Your task to perform on an android device: change your default location settings in chrome Image 0: 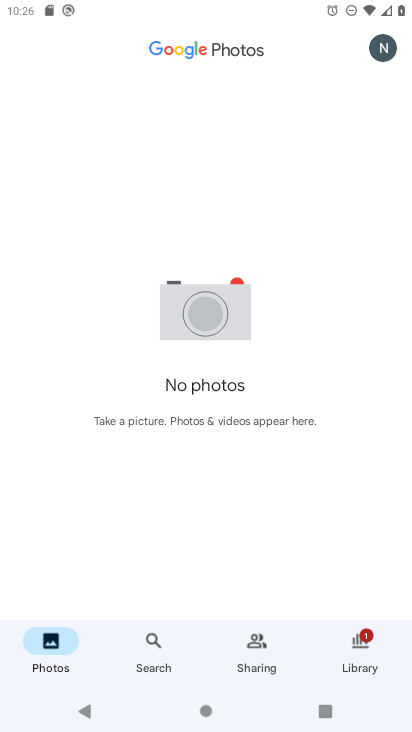
Step 0: press back button
Your task to perform on an android device: change your default location settings in chrome Image 1: 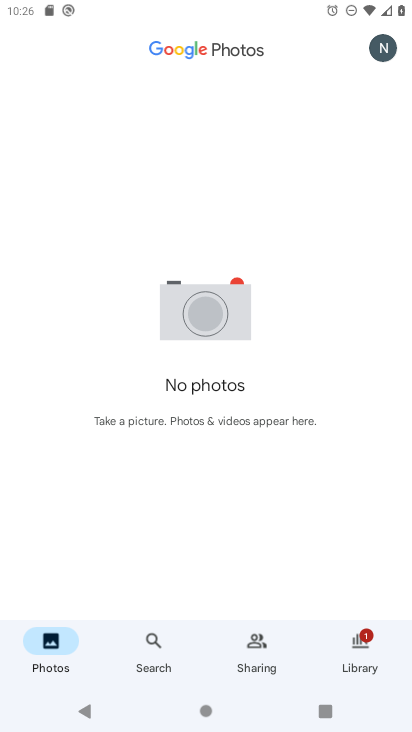
Step 1: press back button
Your task to perform on an android device: change your default location settings in chrome Image 2: 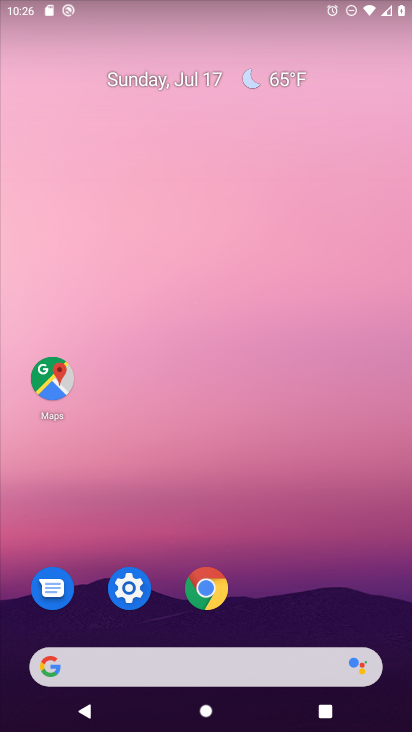
Step 2: drag from (237, 414) to (198, 153)
Your task to perform on an android device: change your default location settings in chrome Image 3: 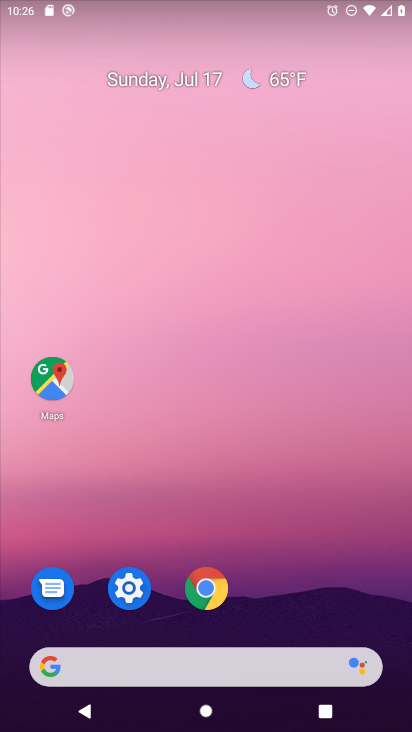
Step 3: drag from (266, 596) to (202, 213)
Your task to perform on an android device: change your default location settings in chrome Image 4: 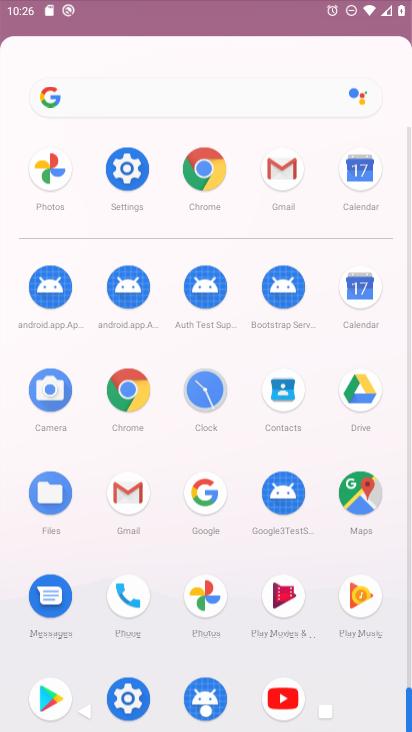
Step 4: drag from (266, 661) to (202, 147)
Your task to perform on an android device: change your default location settings in chrome Image 5: 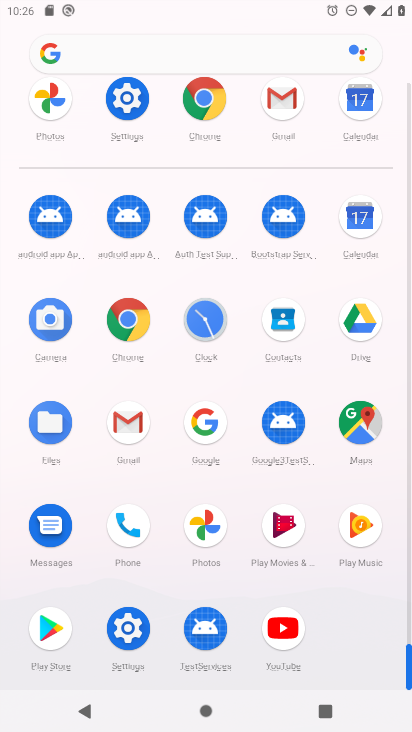
Step 5: click (121, 91)
Your task to perform on an android device: change your default location settings in chrome Image 6: 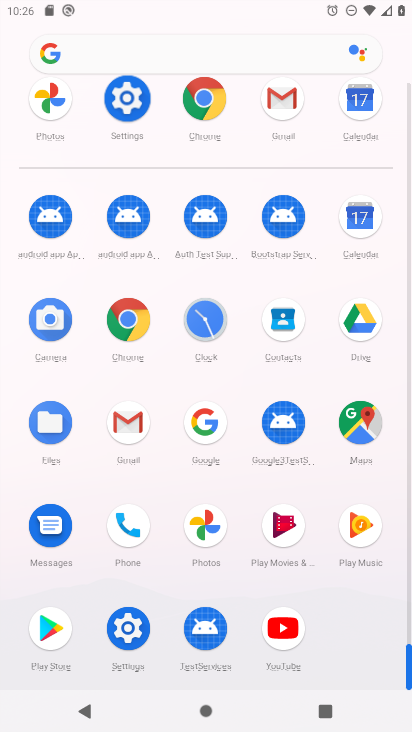
Step 6: click (123, 92)
Your task to perform on an android device: change your default location settings in chrome Image 7: 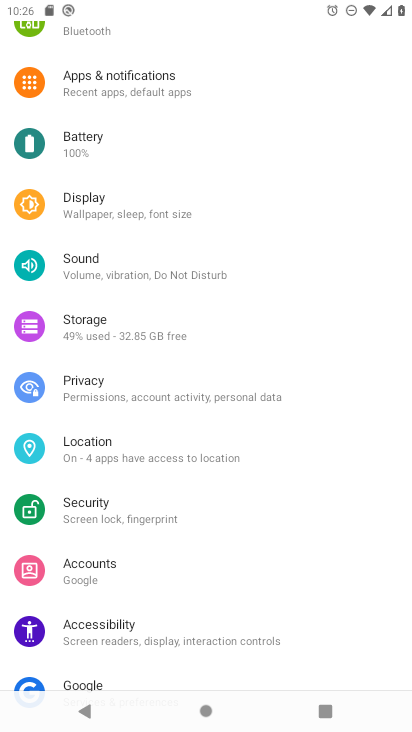
Step 7: press home button
Your task to perform on an android device: change your default location settings in chrome Image 8: 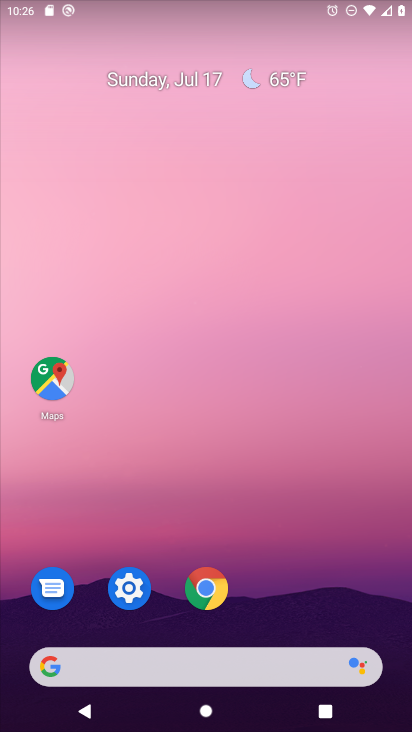
Step 8: drag from (276, 617) to (205, 118)
Your task to perform on an android device: change your default location settings in chrome Image 9: 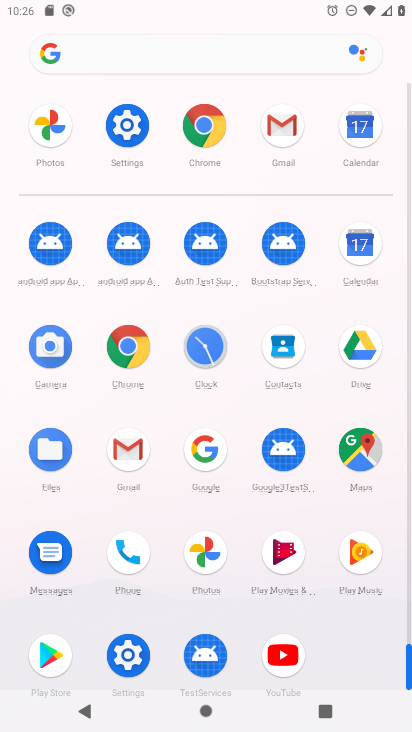
Step 9: click (201, 133)
Your task to perform on an android device: change your default location settings in chrome Image 10: 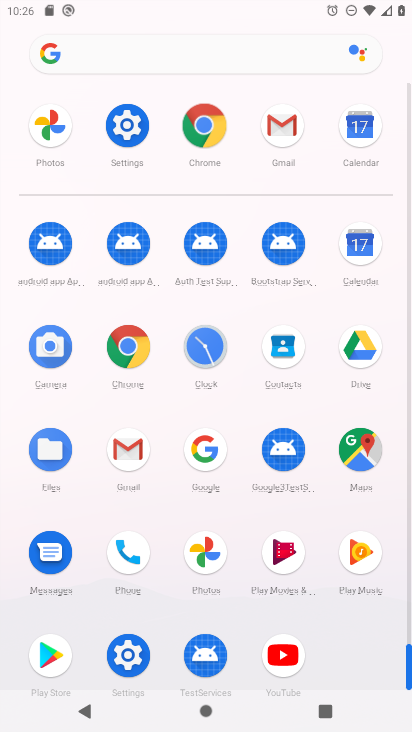
Step 10: click (201, 133)
Your task to perform on an android device: change your default location settings in chrome Image 11: 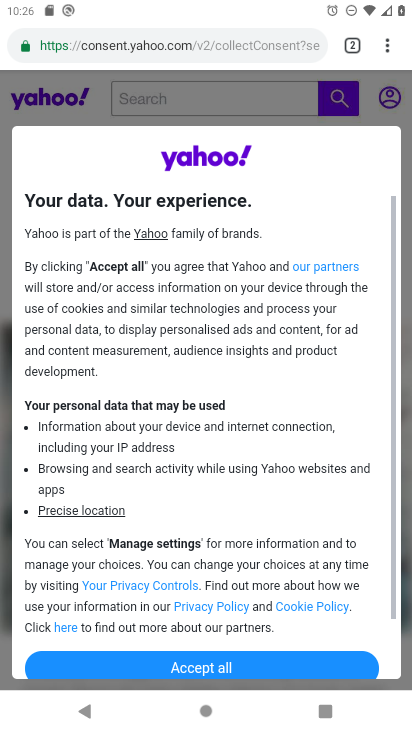
Step 11: drag from (386, 48) to (206, 544)
Your task to perform on an android device: change your default location settings in chrome Image 12: 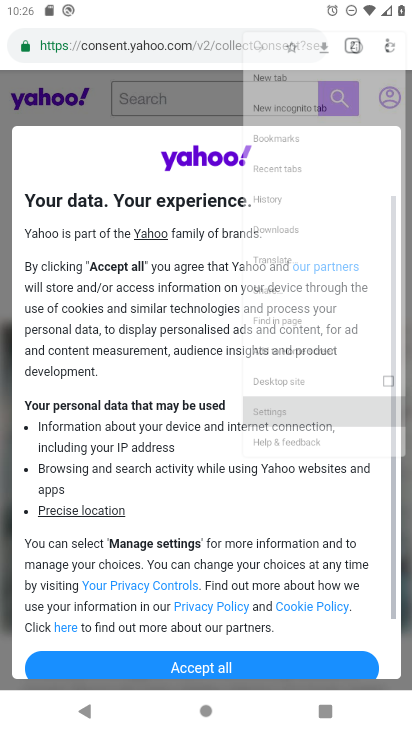
Step 12: click (206, 544)
Your task to perform on an android device: change your default location settings in chrome Image 13: 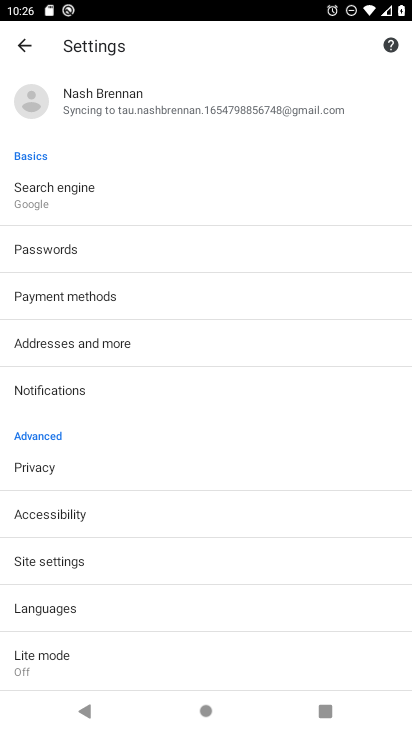
Step 13: click (47, 561)
Your task to perform on an android device: change your default location settings in chrome Image 14: 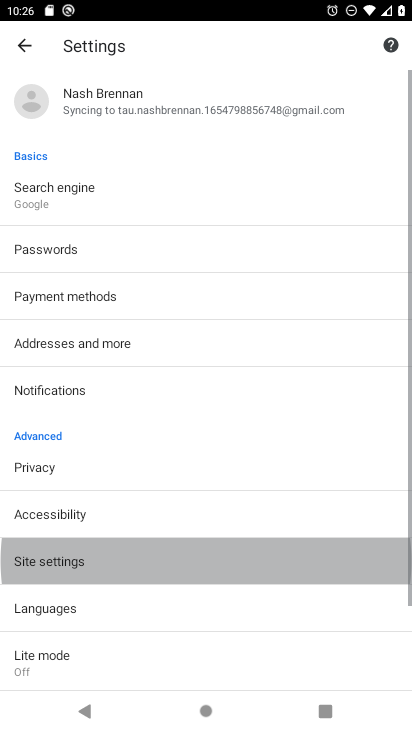
Step 14: click (46, 560)
Your task to perform on an android device: change your default location settings in chrome Image 15: 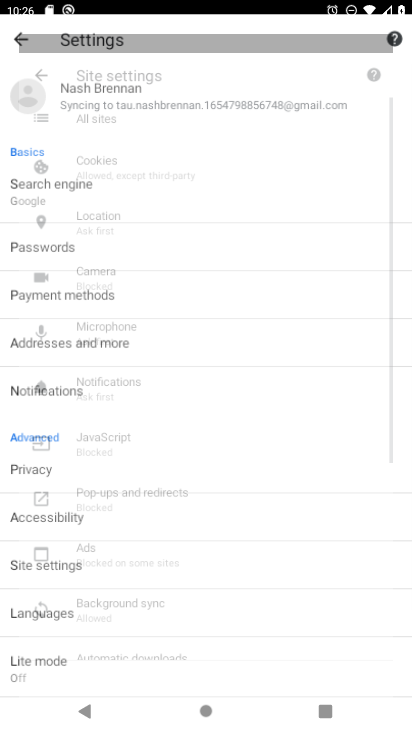
Step 15: click (46, 560)
Your task to perform on an android device: change your default location settings in chrome Image 16: 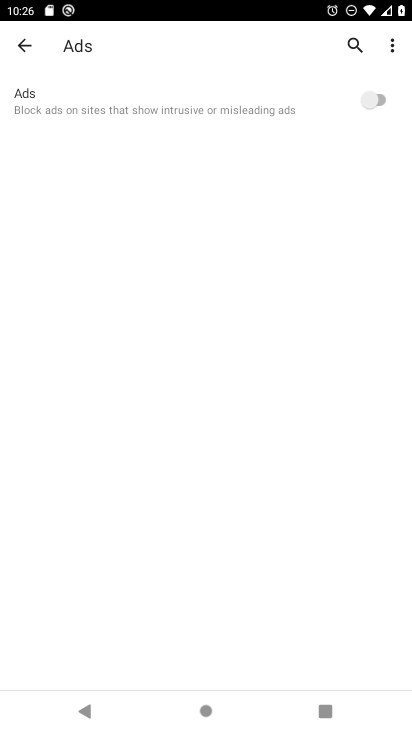
Step 16: click (17, 52)
Your task to perform on an android device: change your default location settings in chrome Image 17: 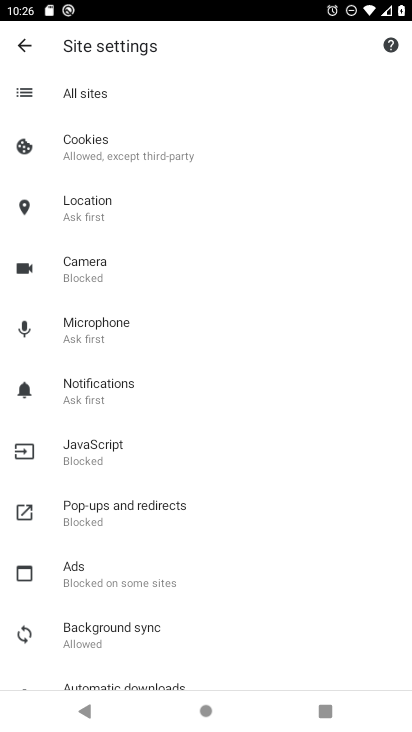
Step 17: click (88, 209)
Your task to perform on an android device: change your default location settings in chrome Image 18: 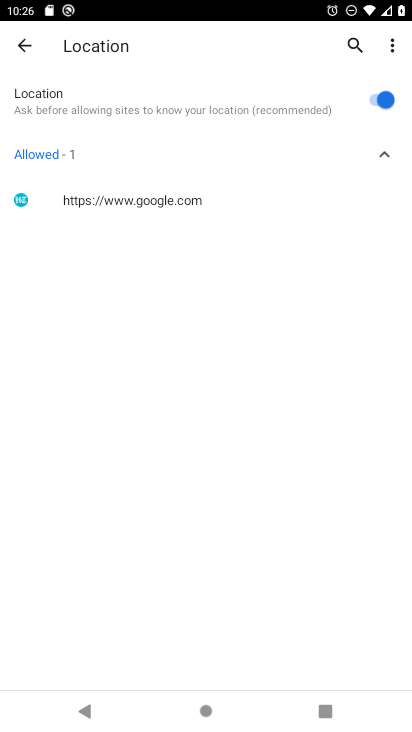
Step 18: click (378, 102)
Your task to perform on an android device: change your default location settings in chrome Image 19: 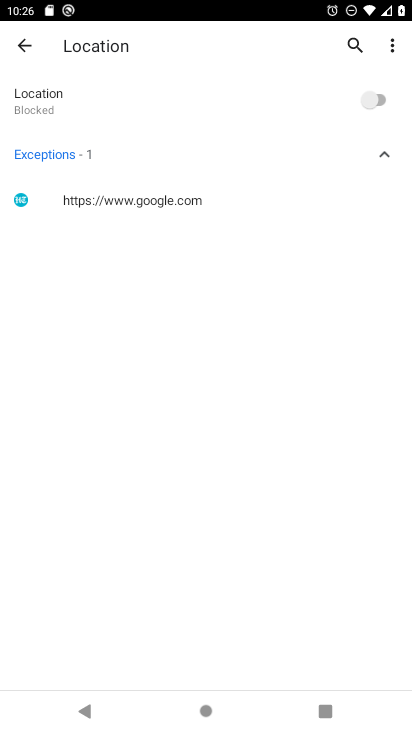
Step 19: task complete